Your task to perform on an android device: Open ESPN.com Image 0: 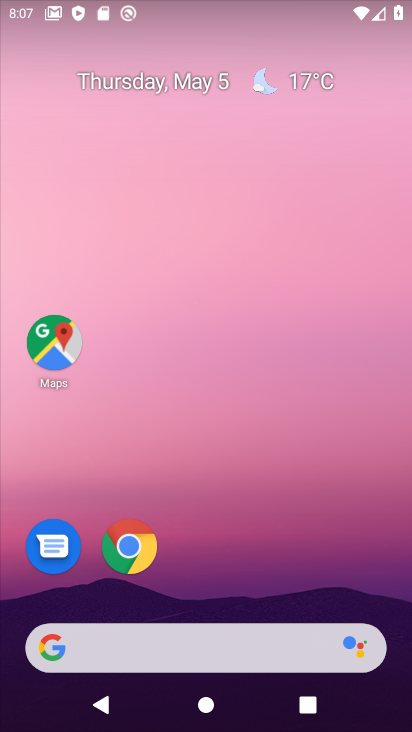
Step 0: drag from (211, 651) to (371, 92)
Your task to perform on an android device: Open ESPN.com Image 1: 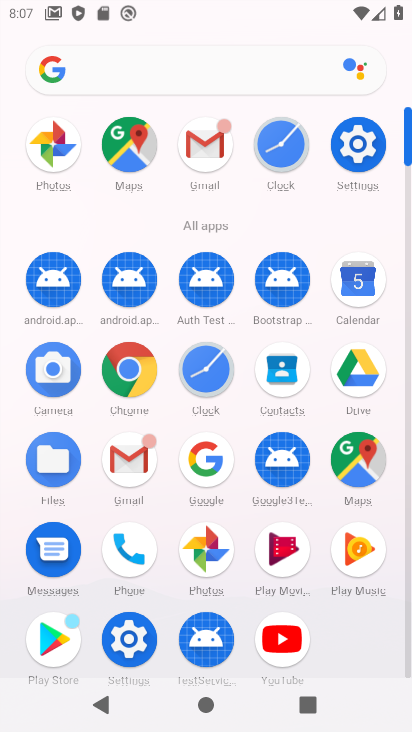
Step 1: click (136, 382)
Your task to perform on an android device: Open ESPN.com Image 2: 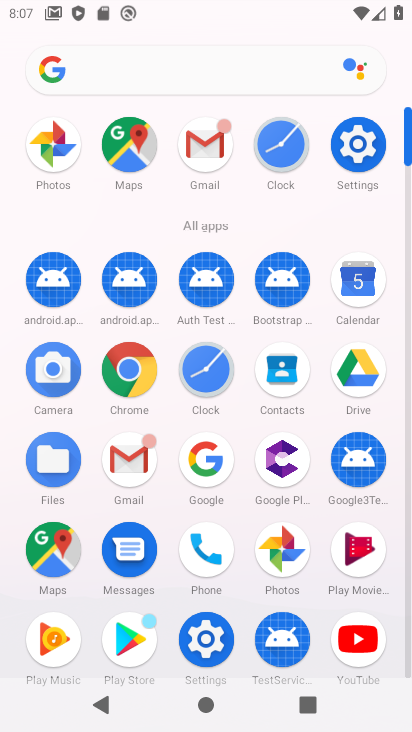
Step 2: click (133, 381)
Your task to perform on an android device: Open ESPN.com Image 3: 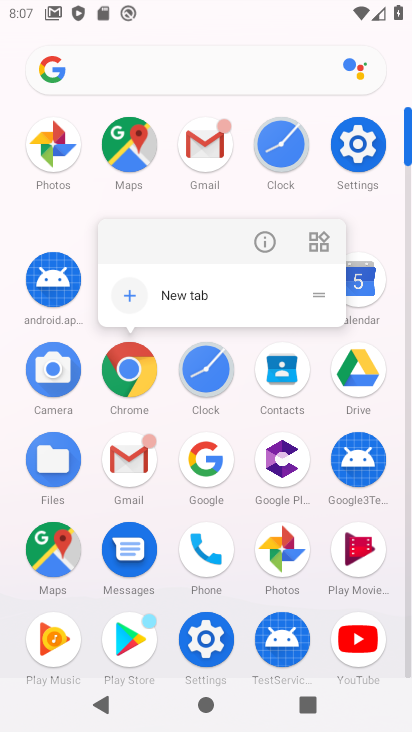
Step 3: click (130, 380)
Your task to perform on an android device: Open ESPN.com Image 4: 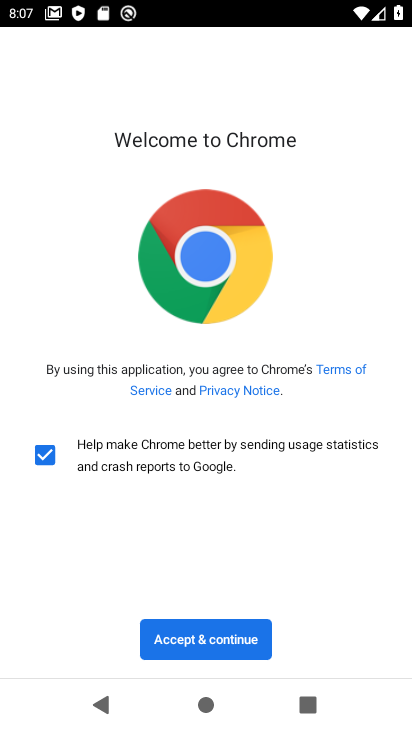
Step 4: click (232, 634)
Your task to perform on an android device: Open ESPN.com Image 5: 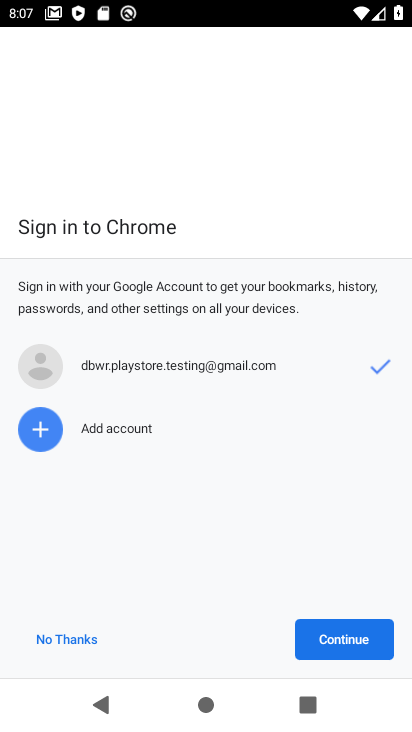
Step 5: click (326, 639)
Your task to perform on an android device: Open ESPN.com Image 6: 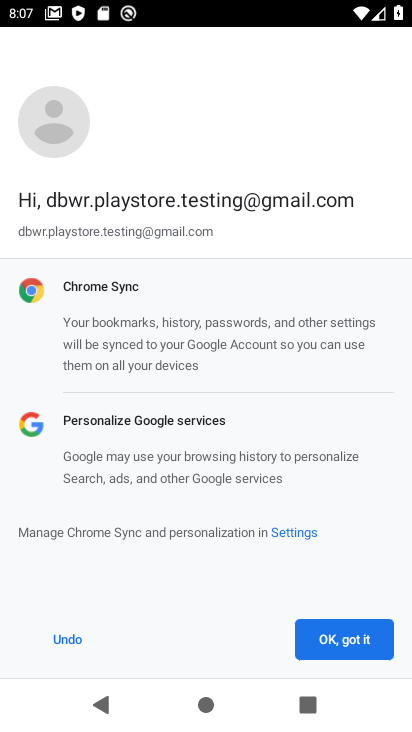
Step 6: click (326, 639)
Your task to perform on an android device: Open ESPN.com Image 7: 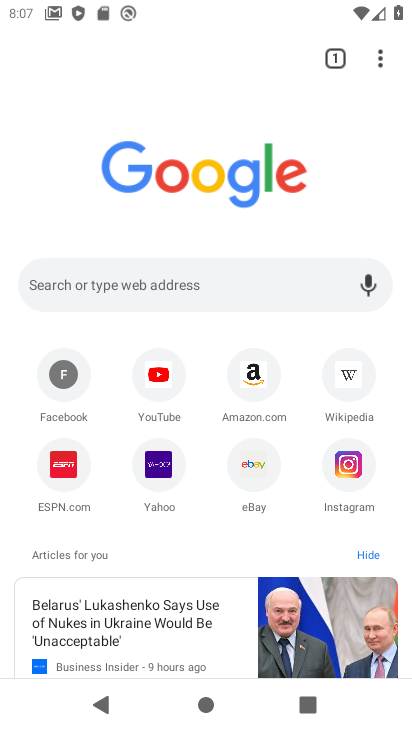
Step 7: click (68, 481)
Your task to perform on an android device: Open ESPN.com Image 8: 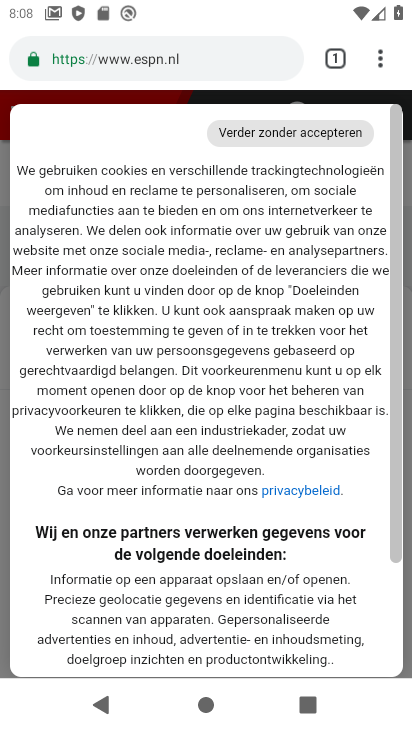
Step 8: task complete